Your task to perform on an android device: Turn off the flashlight Image 0: 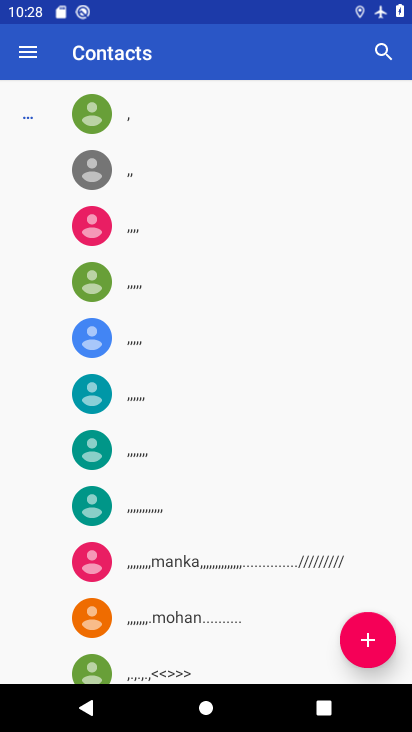
Step 0: press home button
Your task to perform on an android device: Turn off the flashlight Image 1: 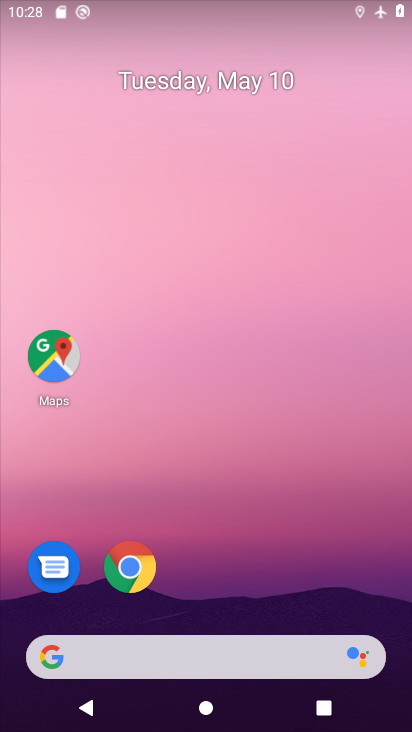
Step 1: drag from (226, 513) to (332, 95)
Your task to perform on an android device: Turn off the flashlight Image 2: 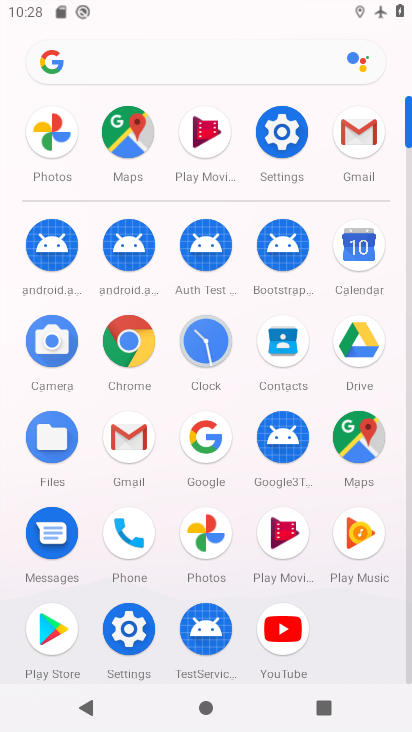
Step 2: click (290, 133)
Your task to perform on an android device: Turn off the flashlight Image 3: 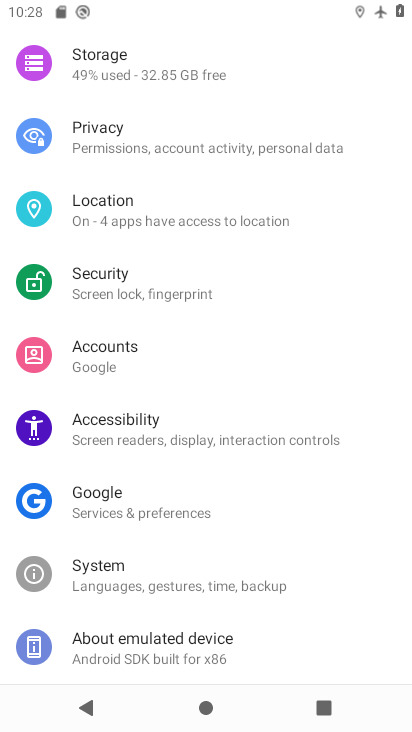
Step 3: task complete